Your task to perform on an android device: Open calendar and show me the first week of next month Image 0: 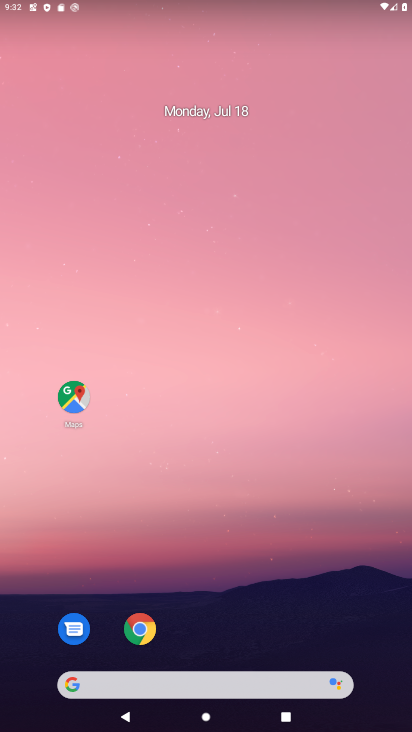
Step 0: drag from (295, 628) to (282, 9)
Your task to perform on an android device: Open calendar and show me the first week of next month Image 1: 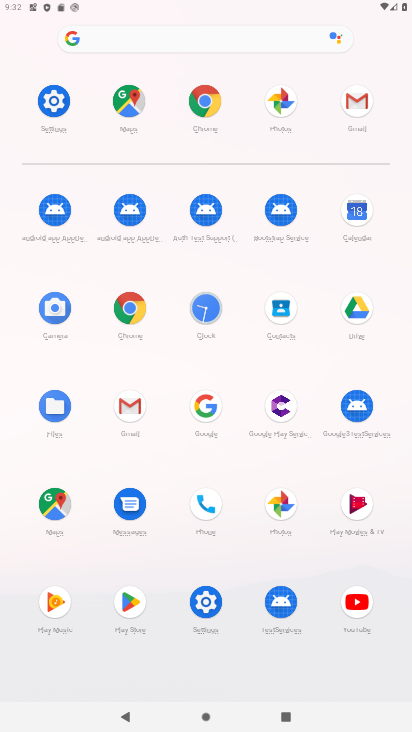
Step 1: click (353, 218)
Your task to perform on an android device: Open calendar and show me the first week of next month Image 2: 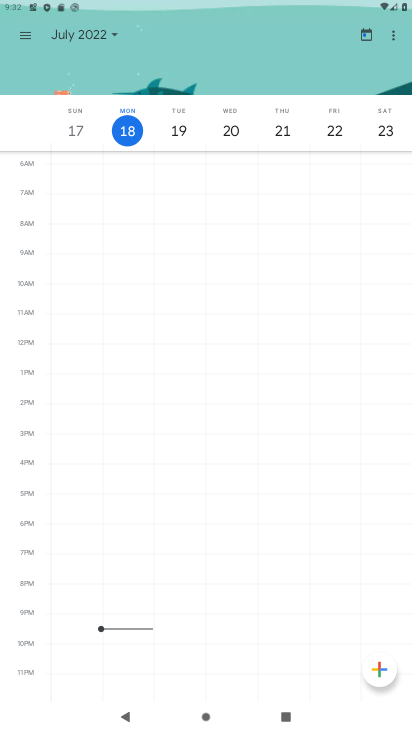
Step 2: click (88, 35)
Your task to perform on an android device: Open calendar and show me the first week of next month Image 3: 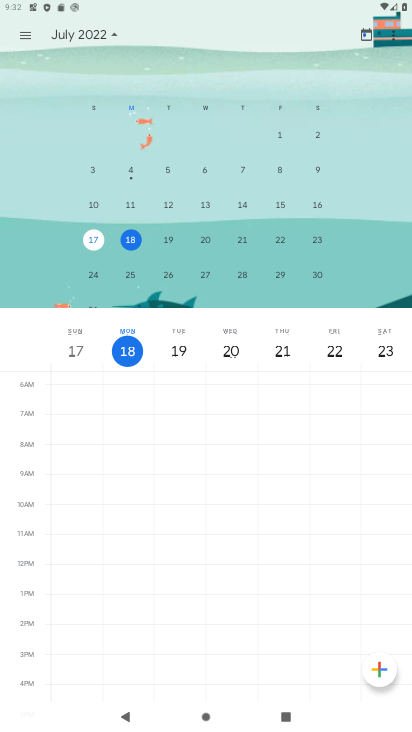
Step 3: drag from (324, 175) to (8, 145)
Your task to perform on an android device: Open calendar and show me the first week of next month Image 4: 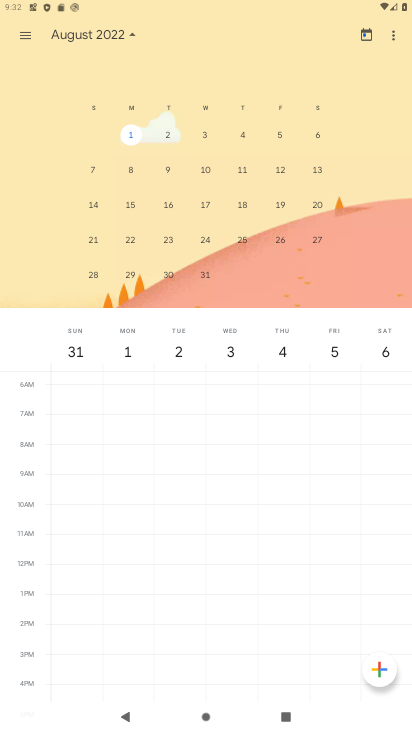
Step 4: click (174, 126)
Your task to perform on an android device: Open calendar and show me the first week of next month Image 5: 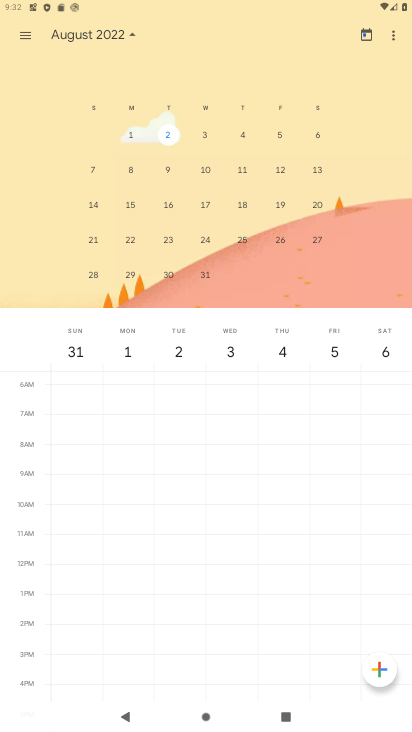
Step 5: click (30, 31)
Your task to perform on an android device: Open calendar and show me the first week of next month Image 6: 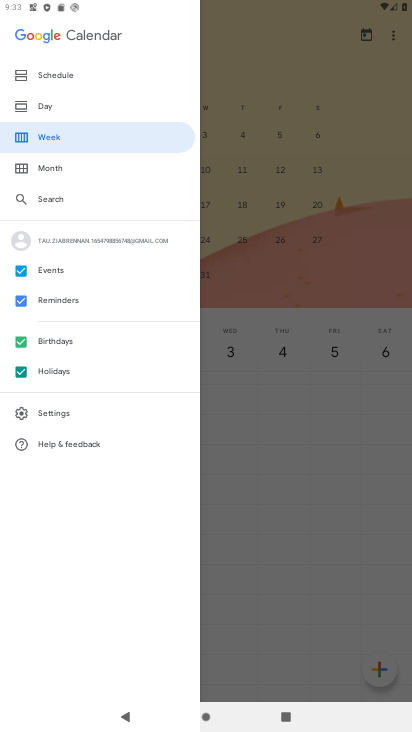
Step 6: click (126, 129)
Your task to perform on an android device: Open calendar and show me the first week of next month Image 7: 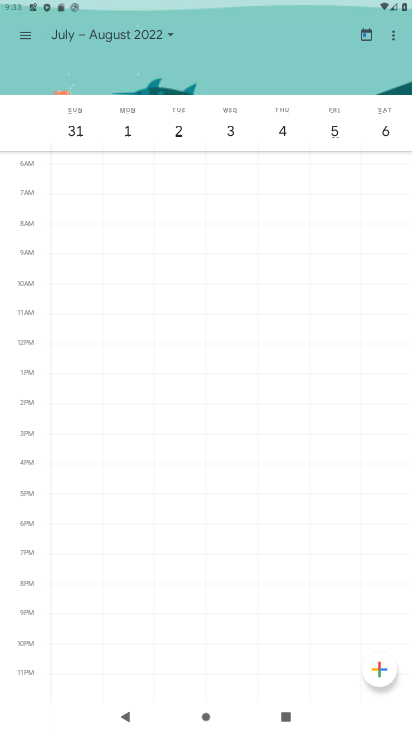
Step 7: task complete